Your task to perform on an android device: Open Google Chrome and open the bookmarks view Image 0: 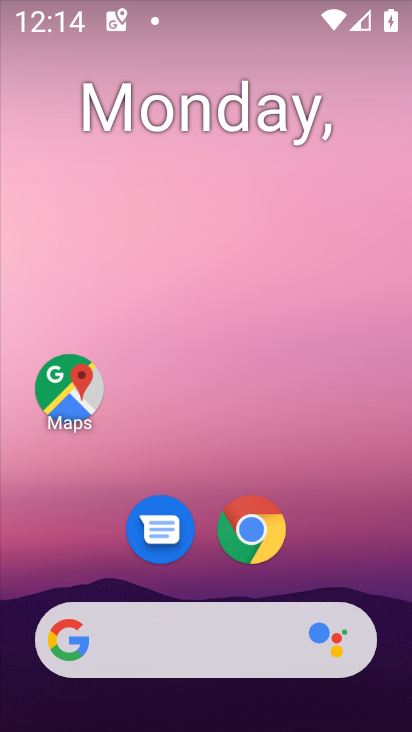
Step 0: click (258, 548)
Your task to perform on an android device: Open Google Chrome and open the bookmarks view Image 1: 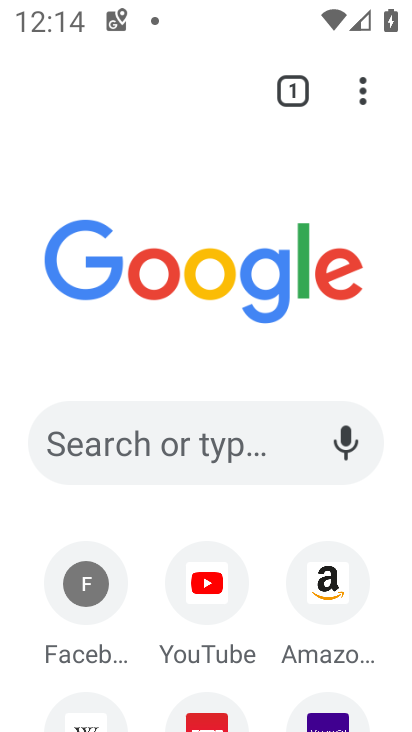
Step 1: task complete